Your task to perform on an android device: Do I have any events this weekend? Image 0: 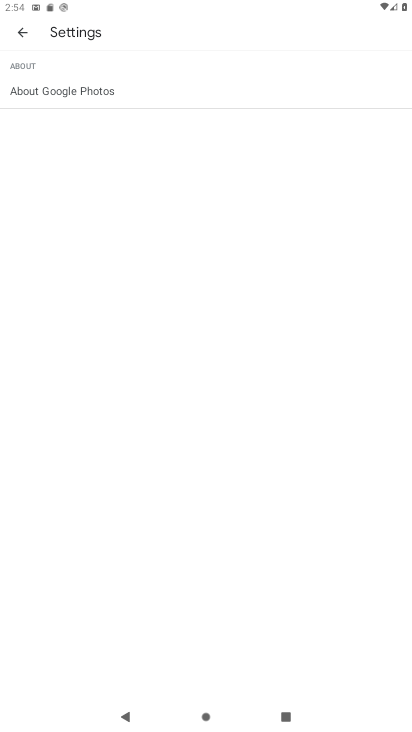
Step 0: press home button
Your task to perform on an android device: Do I have any events this weekend? Image 1: 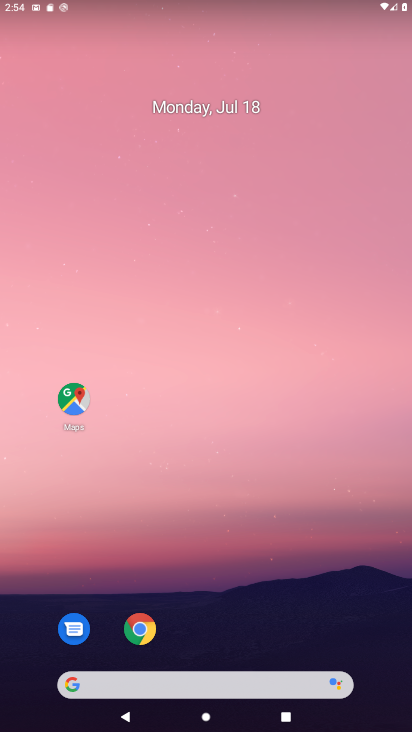
Step 1: drag from (328, 585) to (353, 111)
Your task to perform on an android device: Do I have any events this weekend? Image 2: 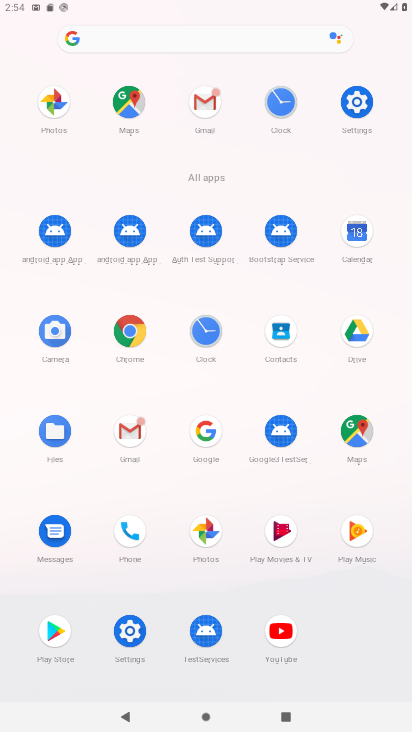
Step 2: click (347, 236)
Your task to perform on an android device: Do I have any events this weekend? Image 3: 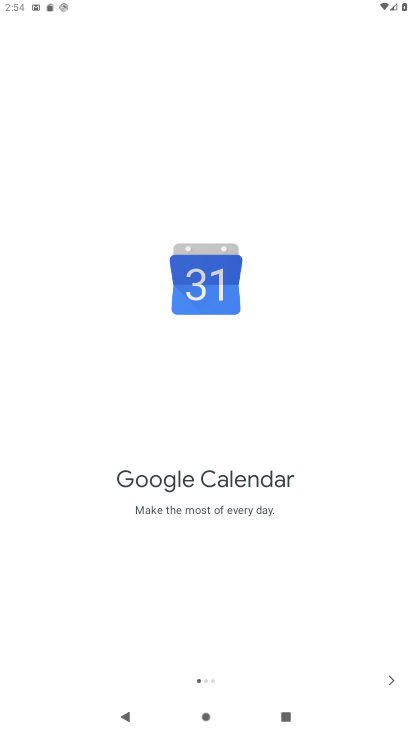
Step 3: click (386, 679)
Your task to perform on an android device: Do I have any events this weekend? Image 4: 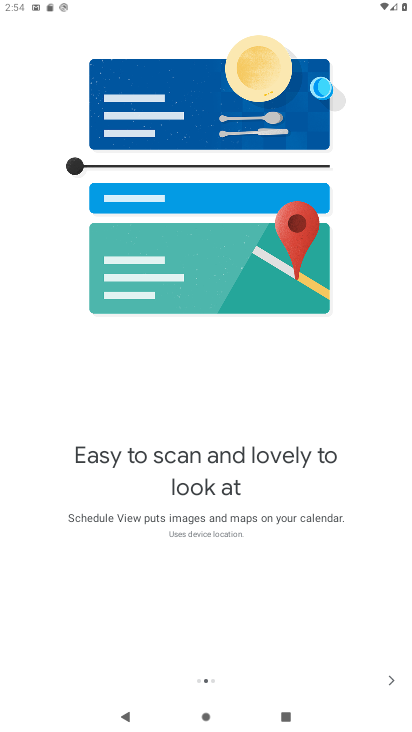
Step 4: click (386, 679)
Your task to perform on an android device: Do I have any events this weekend? Image 5: 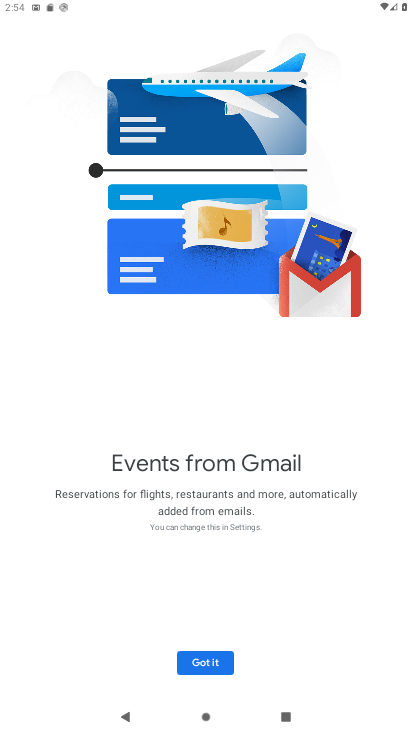
Step 5: click (200, 662)
Your task to perform on an android device: Do I have any events this weekend? Image 6: 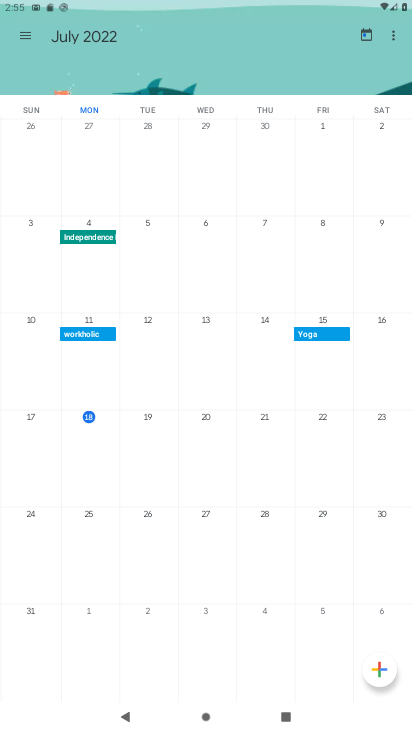
Step 6: click (15, 24)
Your task to perform on an android device: Do I have any events this weekend? Image 7: 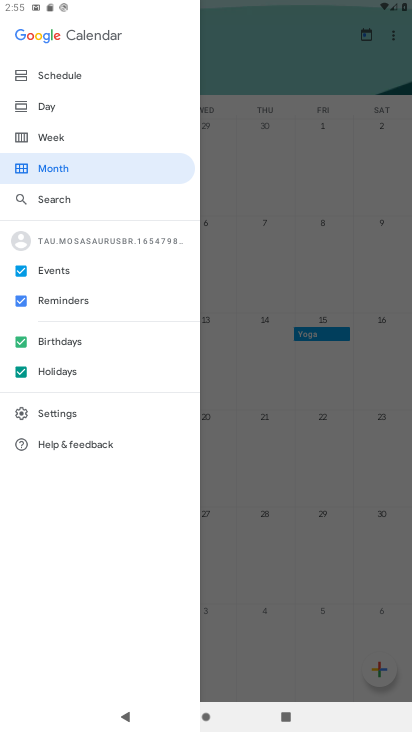
Step 7: click (63, 74)
Your task to perform on an android device: Do I have any events this weekend? Image 8: 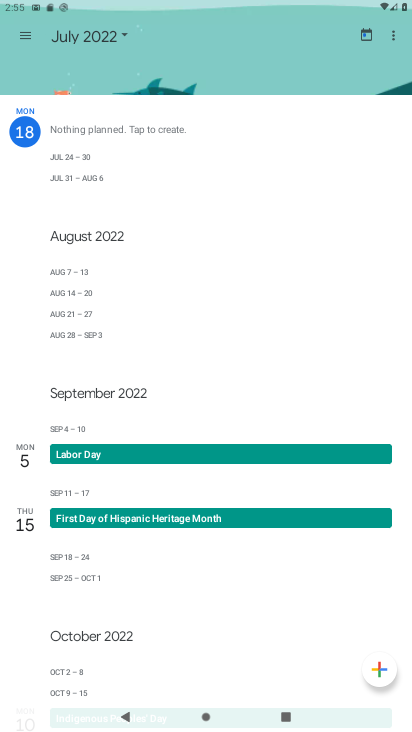
Step 8: task complete